Your task to perform on an android device: set an alarm Image 0: 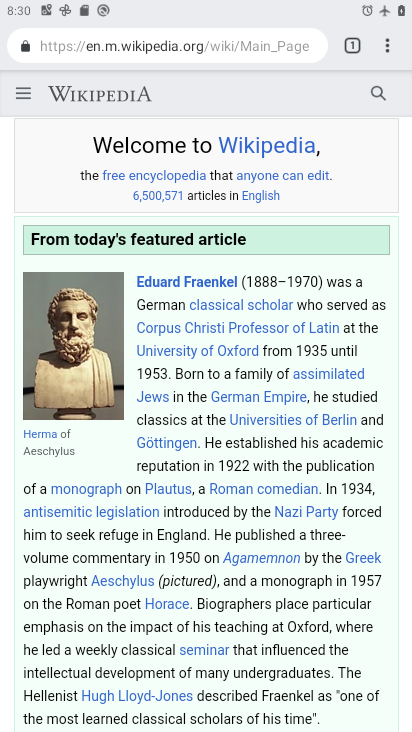
Step 0: press home button
Your task to perform on an android device: set an alarm Image 1: 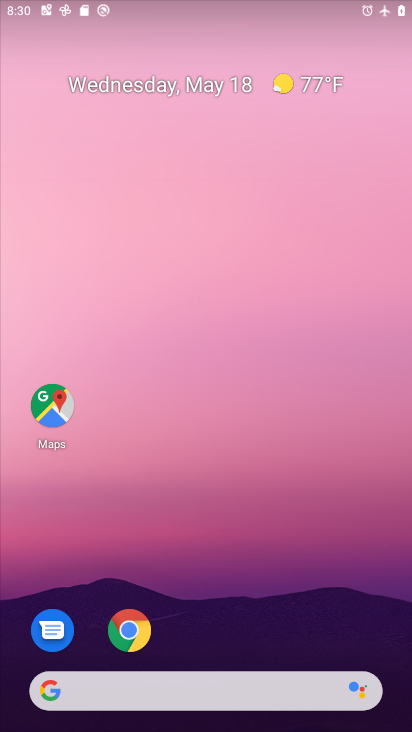
Step 1: drag from (185, 510) to (175, 180)
Your task to perform on an android device: set an alarm Image 2: 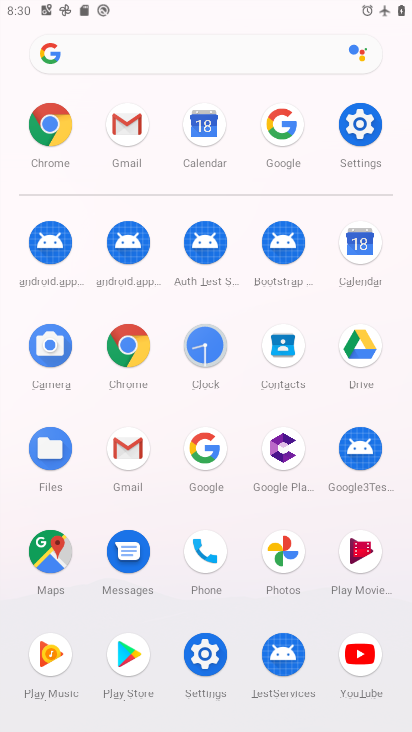
Step 2: click (196, 348)
Your task to perform on an android device: set an alarm Image 3: 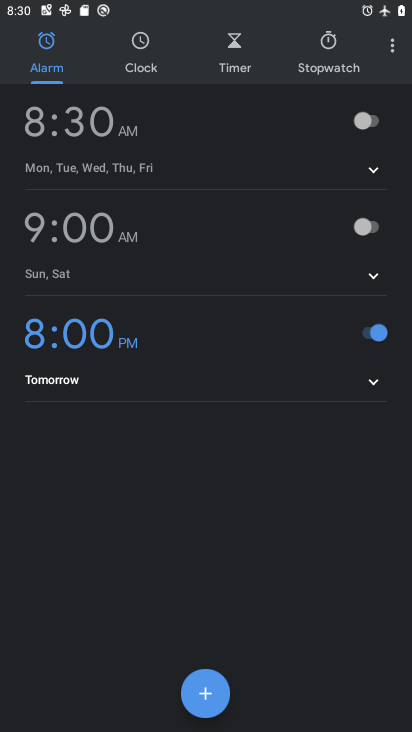
Step 3: click (205, 708)
Your task to perform on an android device: set an alarm Image 4: 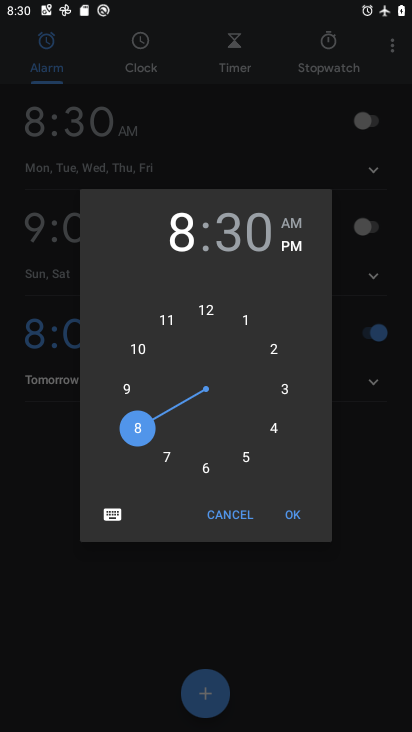
Step 4: click (300, 524)
Your task to perform on an android device: set an alarm Image 5: 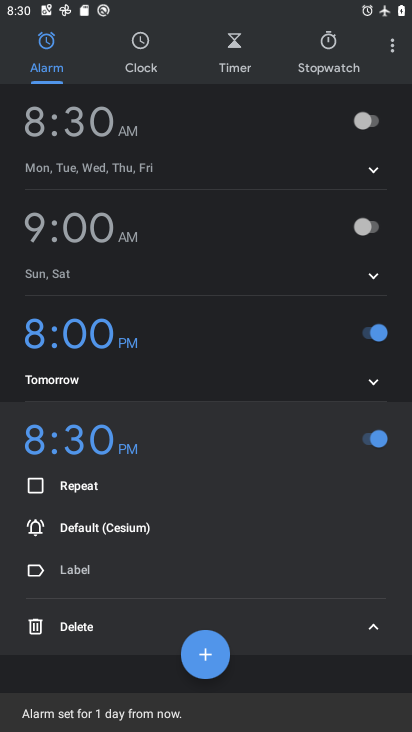
Step 5: task complete